Your task to perform on an android device: toggle wifi Image 0: 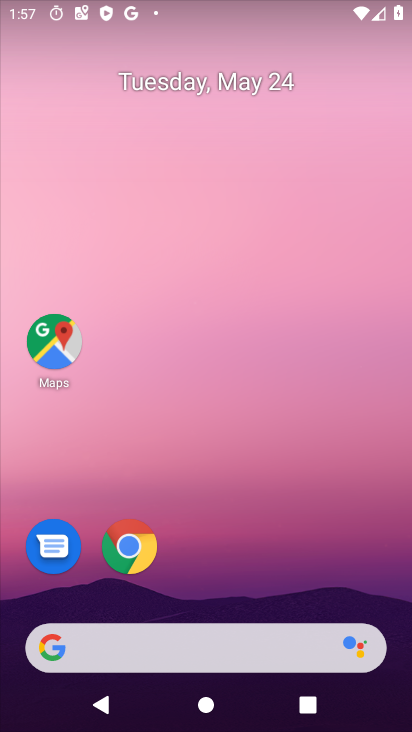
Step 0: drag from (198, 666) to (204, 162)
Your task to perform on an android device: toggle wifi Image 1: 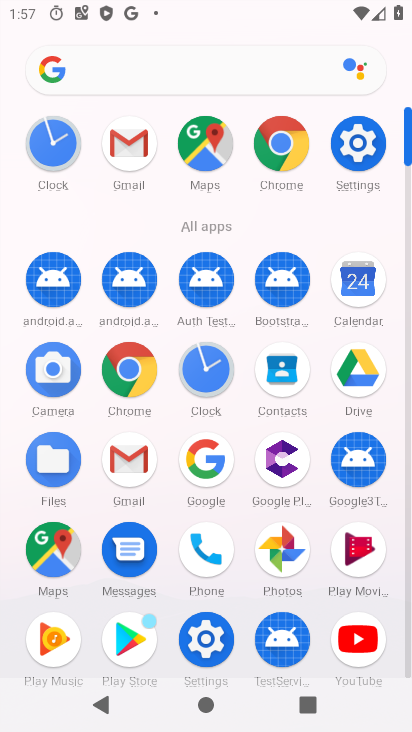
Step 1: click (361, 163)
Your task to perform on an android device: toggle wifi Image 2: 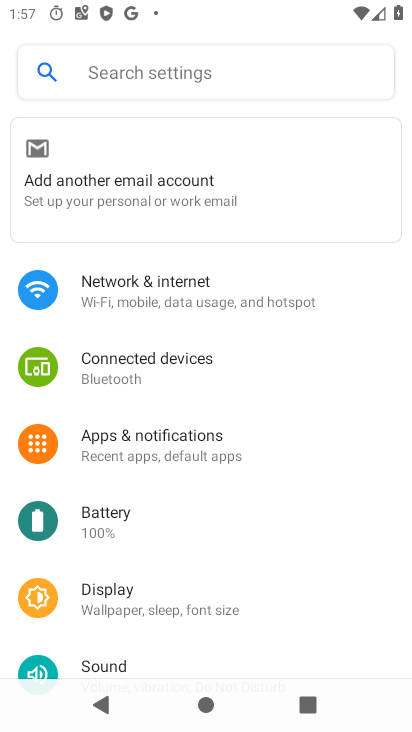
Step 2: click (173, 288)
Your task to perform on an android device: toggle wifi Image 3: 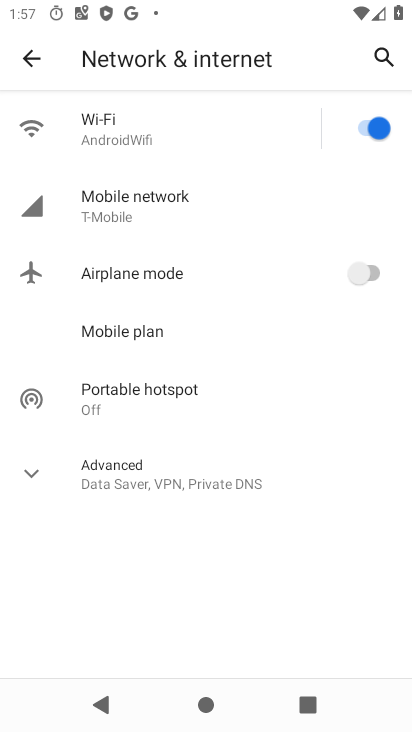
Step 3: click (377, 130)
Your task to perform on an android device: toggle wifi Image 4: 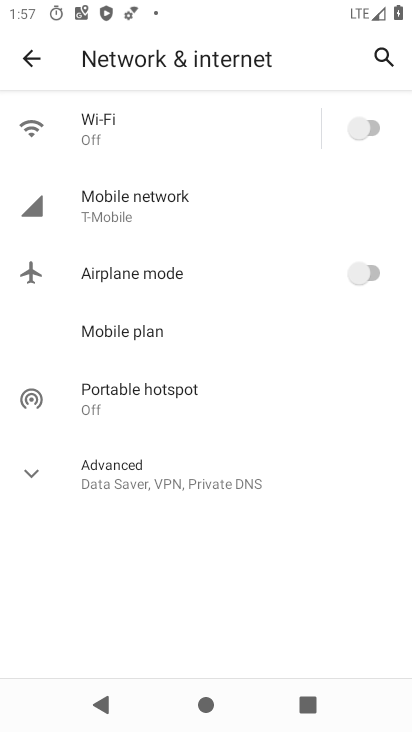
Step 4: task complete